Your task to perform on an android device: Go to ESPN.com Image 0: 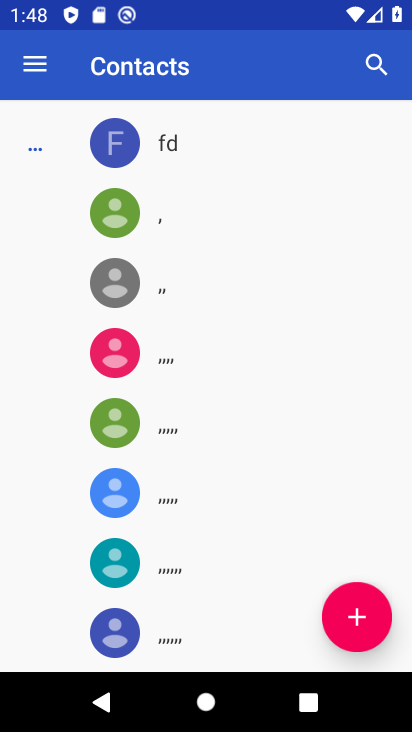
Step 0: press home button
Your task to perform on an android device: Go to ESPN.com Image 1: 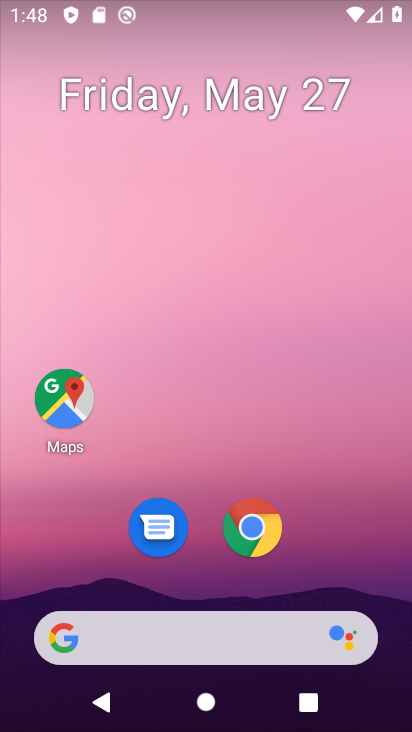
Step 1: drag from (163, 505) to (217, 193)
Your task to perform on an android device: Go to ESPN.com Image 2: 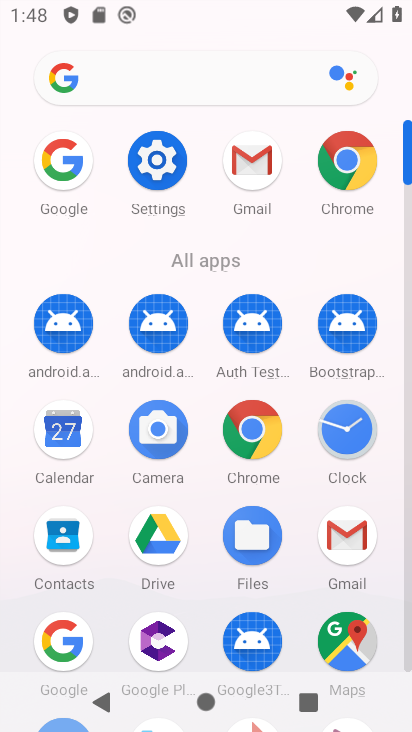
Step 2: click (264, 423)
Your task to perform on an android device: Go to ESPN.com Image 3: 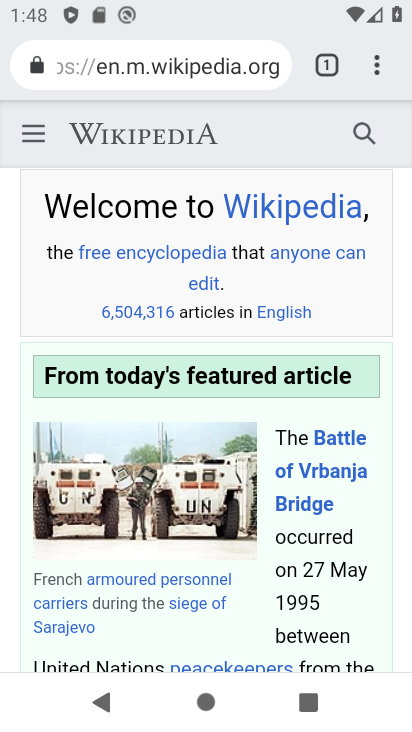
Step 3: click (201, 68)
Your task to perform on an android device: Go to ESPN.com Image 4: 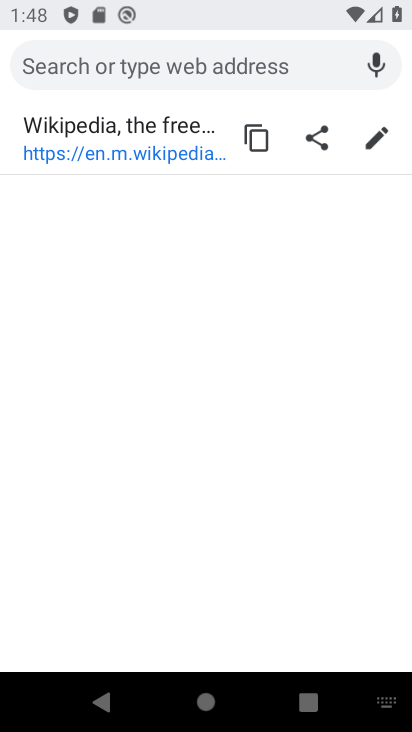
Step 4: click (316, 65)
Your task to perform on an android device: Go to ESPN.com Image 5: 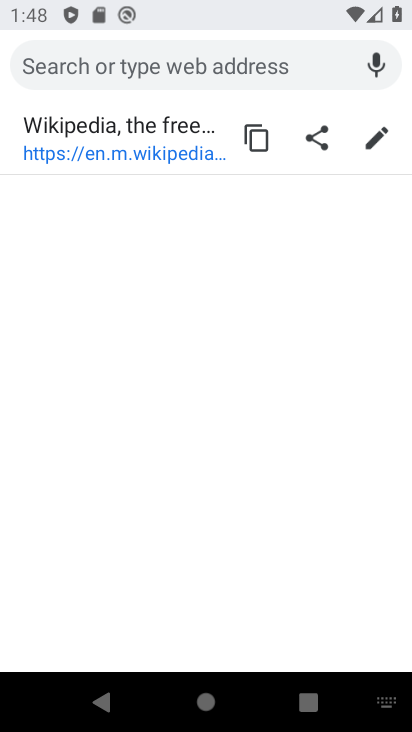
Step 5: press back button
Your task to perform on an android device: Go to ESPN.com Image 6: 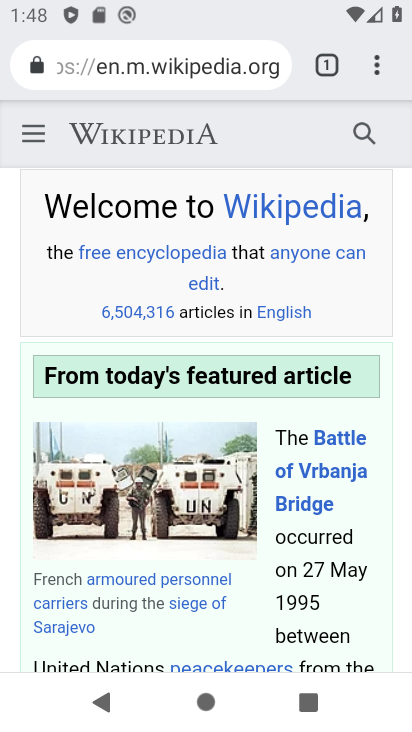
Step 6: click (321, 63)
Your task to perform on an android device: Go to ESPN.com Image 7: 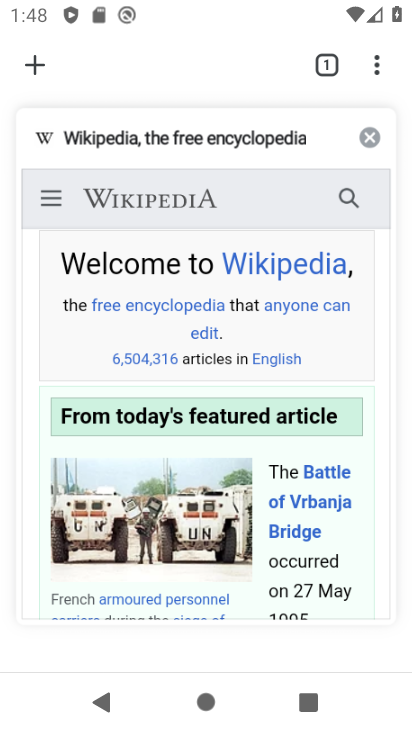
Step 7: click (373, 131)
Your task to perform on an android device: Go to ESPN.com Image 8: 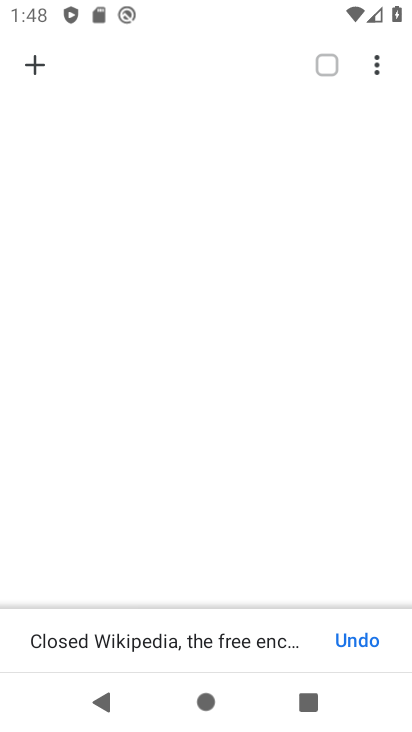
Step 8: click (30, 61)
Your task to perform on an android device: Go to ESPN.com Image 9: 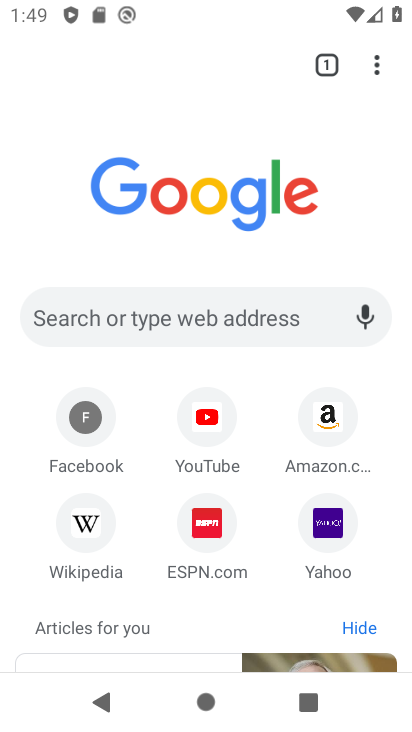
Step 9: click (215, 535)
Your task to perform on an android device: Go to ESPN.com Image 10: 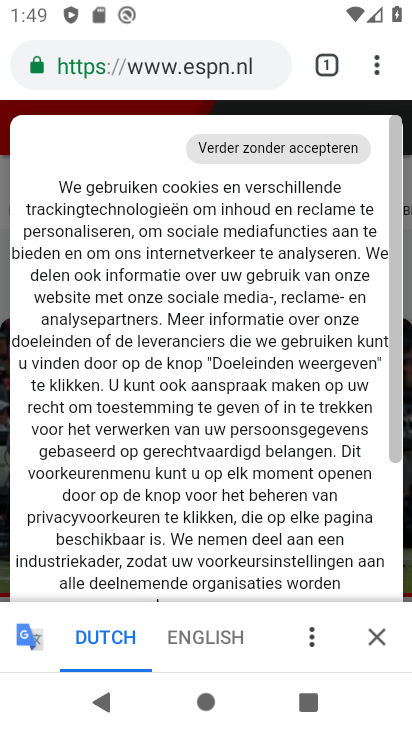
Step 10: task complete